Your task to perform on an android device: open a new tab in the chrome app Image 0: 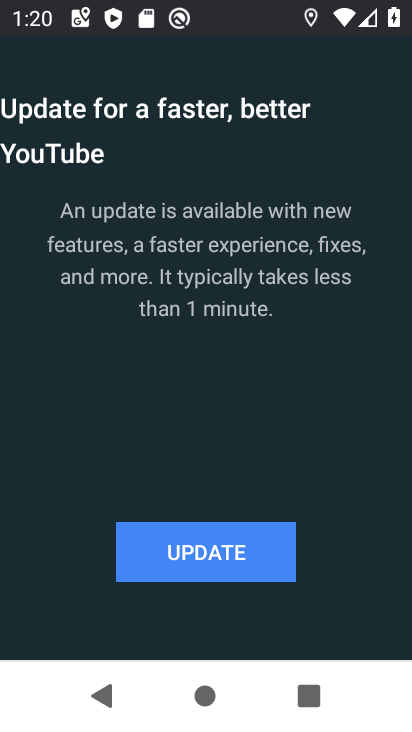
Step 0: press back button
Your task to perform on an android device: open a new tab in the chrome app Image 1: 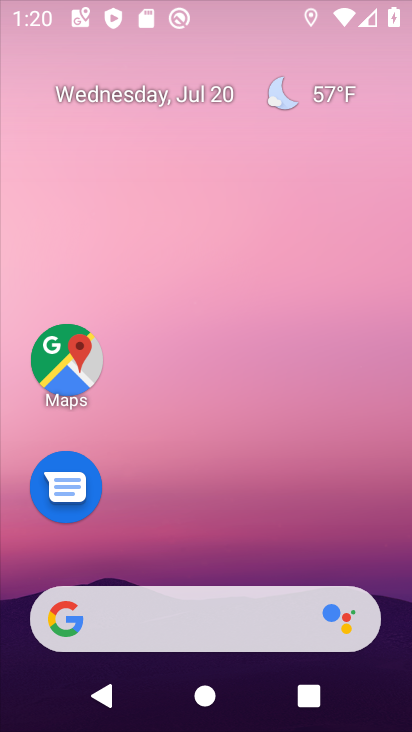
Step 1: drag from (307, 525) to (308, 7)
Your task to perform on an android device: open a new tab in the chrome app Image 2: 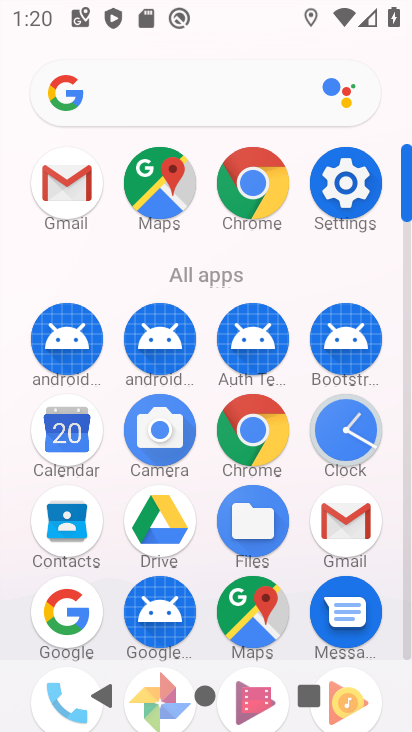
Step 2: click (258, 188)
Your task to perform on an android device: open a new tab in the chrome app Image 3: 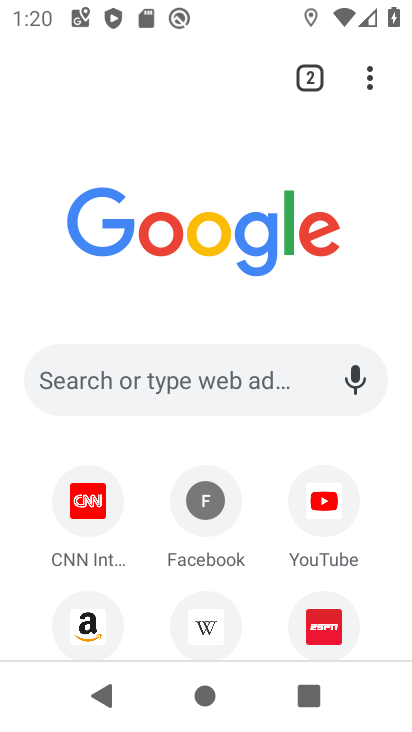
Step 3: click (303, 81)
Your task to perform on an android device: open a new tab in the chrome app Image 4: 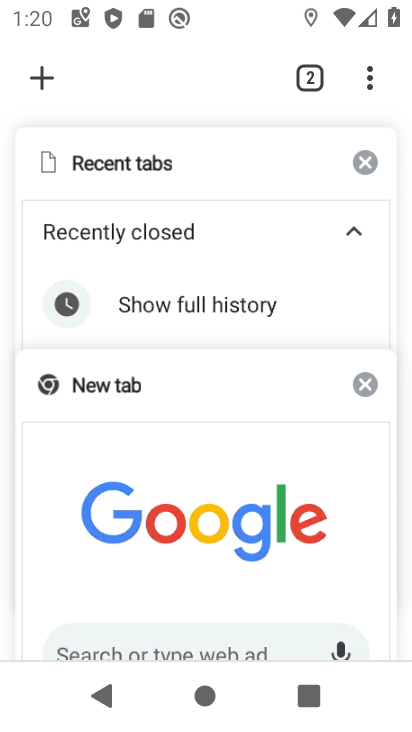
Step 4: click (45, 69)
Your task to perform on an android device: open a new tab in the chrome app Image 5: 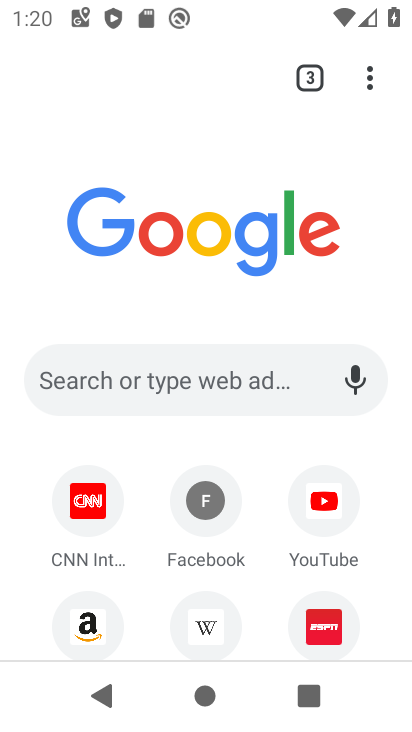
Step 5: task complete